Your task to perform on an android device: all mails in gmail Image 0: 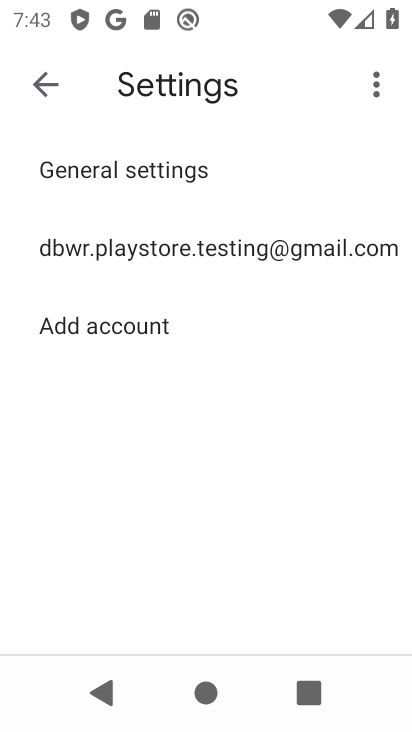
Step 0: press home button
Your task to perform on an android device: all mails in gmail Image 1: 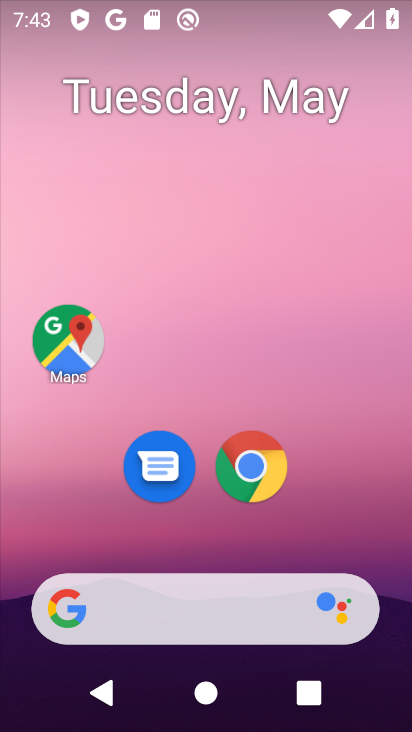
Step 1: drag from (196, 573) to (199, 113)
Your task to perform on an android device: all mails in gmail Image 2: 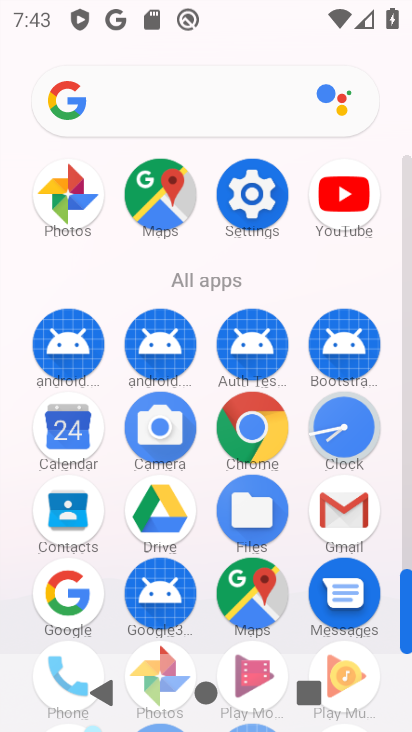
Step 2: click (341, 504)
Your task to perform on an android device: all mails in gmail Image 3: 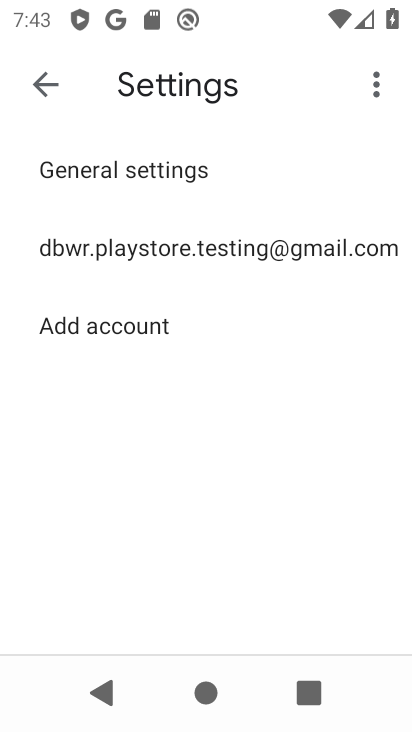
Step 3: click (39, 84)
Your task to perform on an android device: all mails in gmail Image 4: 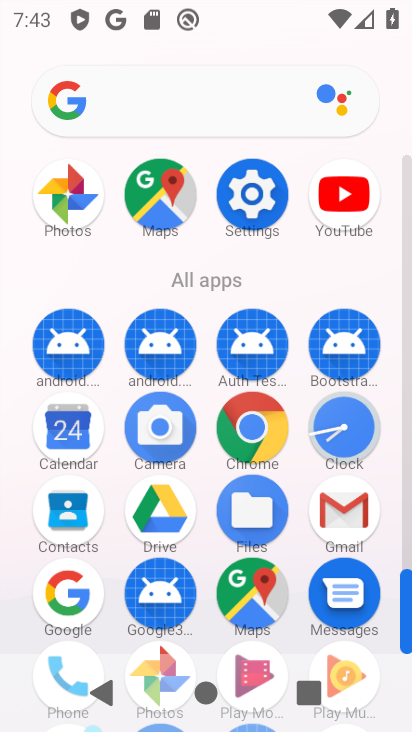
Step 4: click (335, 518)
Your task to perform on an android device: all mails in gmail Image 5: 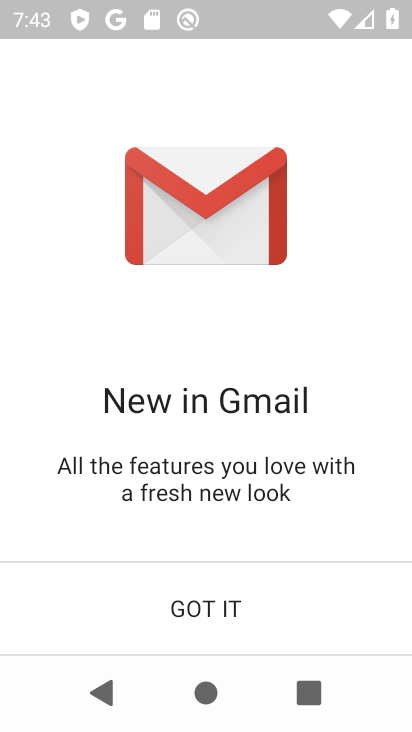
Step 5: click (215, 612)
Your task to perform on an android device: all mails in gmail Image 6: 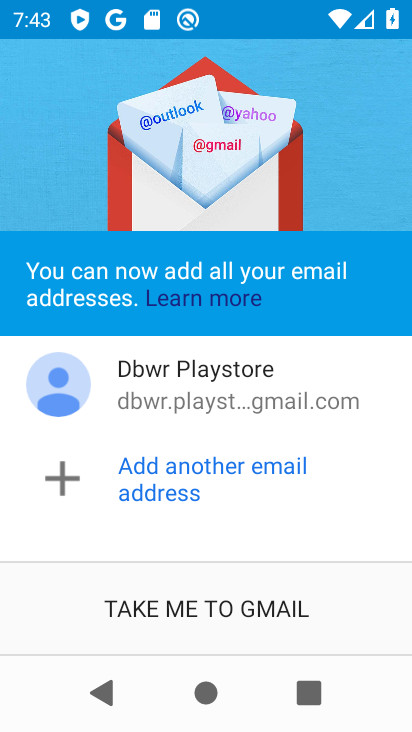
Step 6: click (215, 612)
Your task to perform on an android device: all mails in gmail Image 7: 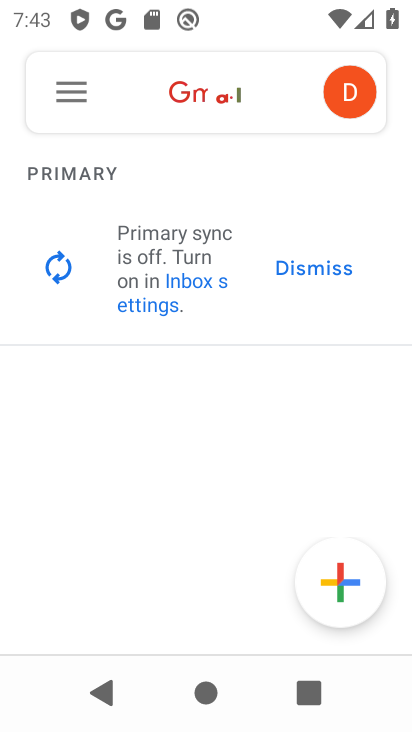
Step 7: click (69, 100)
Your task to perform on an android device: all mails in gmail Image 8: 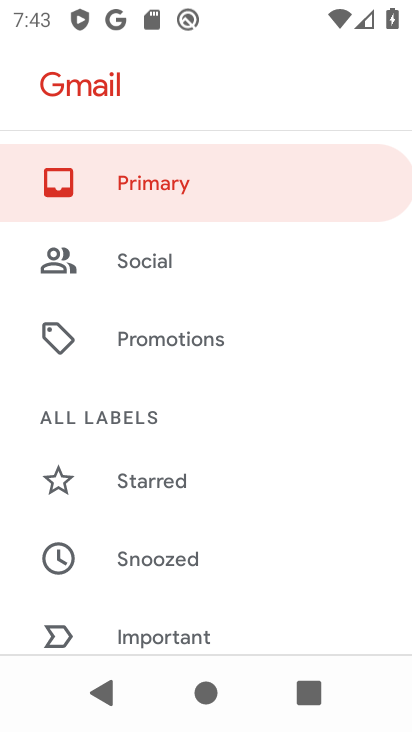
Step 8: drag from (180, 577) to (181, 169)
Your task to perform on an android device: all mails in gmail Image 9: 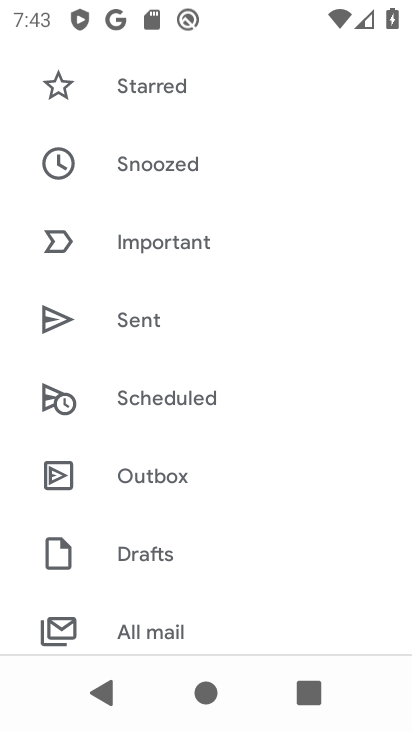
Step 9: click (163, 634)
Your task to perform on an android device: all mails in gmail Image 10: 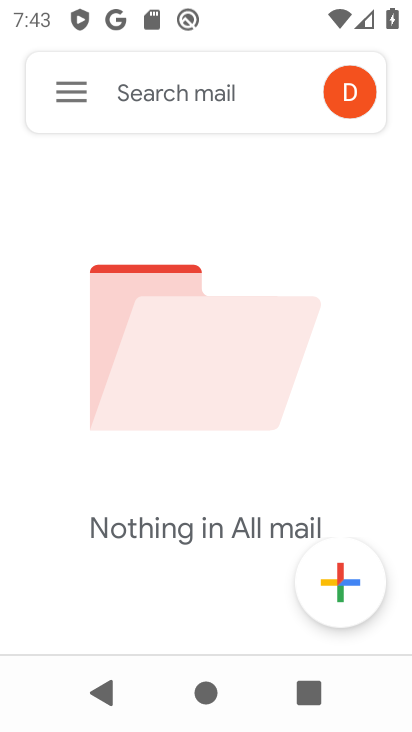
Step 10: task complete